Your task to perform on an android device: open a new tab in the chrome app Image 0: 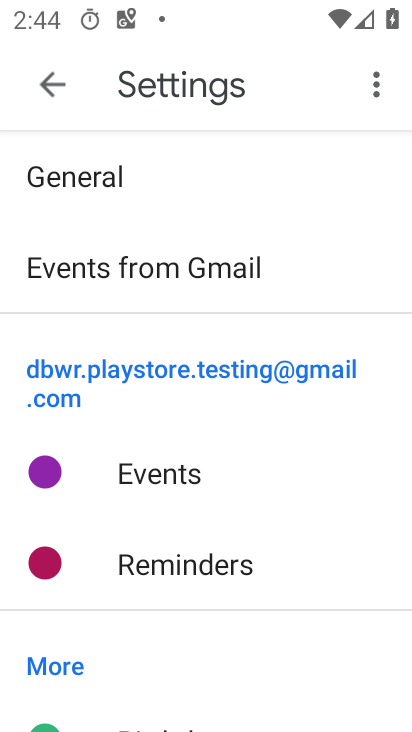
Step 0: press home button
Your task to perform on an android device: open a new tab in the chrome app Image 1: 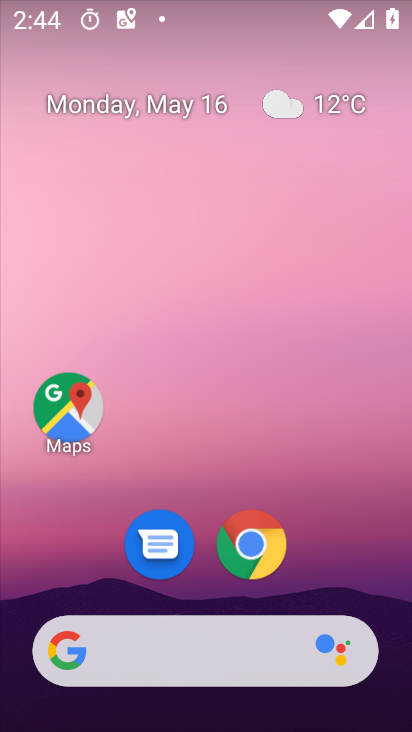
Step 1: click (248, 535)
Your task to perform on an android device: open a new tab in the chrome app Image 2: 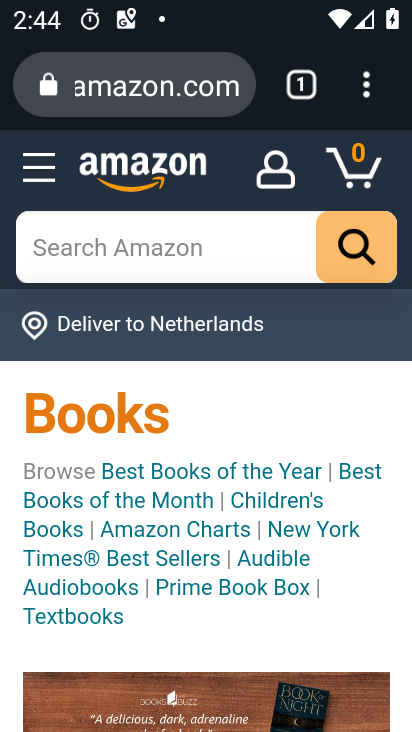
Step 2: click (368, 96)
Your task to perform on an android device: open a new tab in the chrome app Image 3: 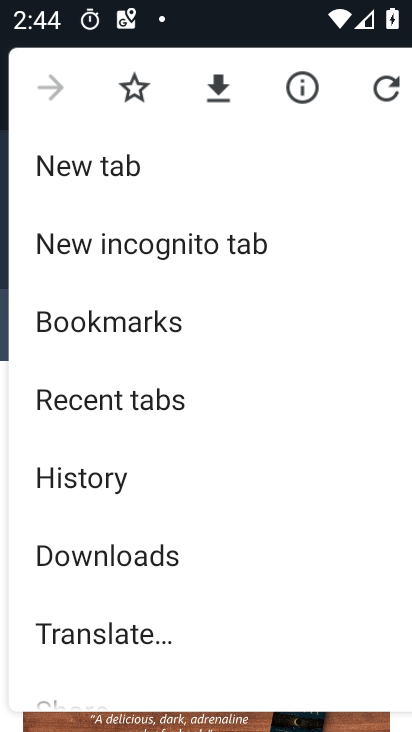
Step 3: click (65, 165)
Your task to perform on an android device: open a new tab in the chrome app Image 4: 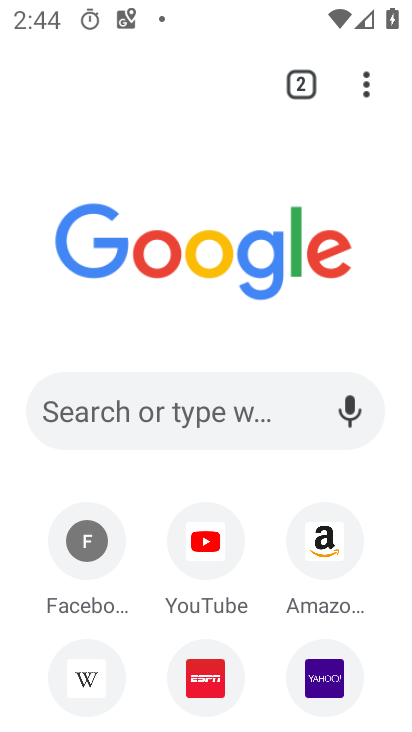
Step 4: task complete